Your task to perform on an android device: See recent photos Image 0: 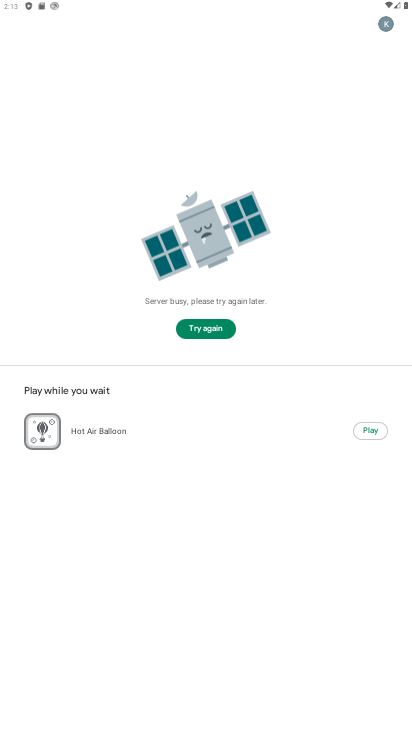
Step 0: task complete